Your task to perform on an android device: Search for vegetarian restaurants on Maps Image 0: 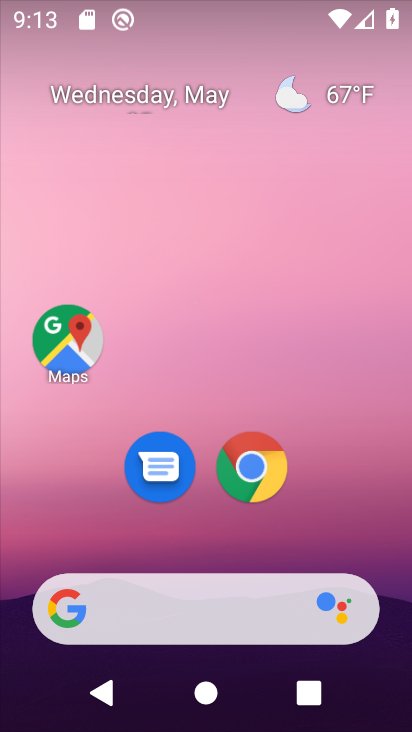
Step 0: drag from (319, 387) to (311, 62)
Your task to perform on an android device: Search for vegetarian restaurants on Maps Image 1: 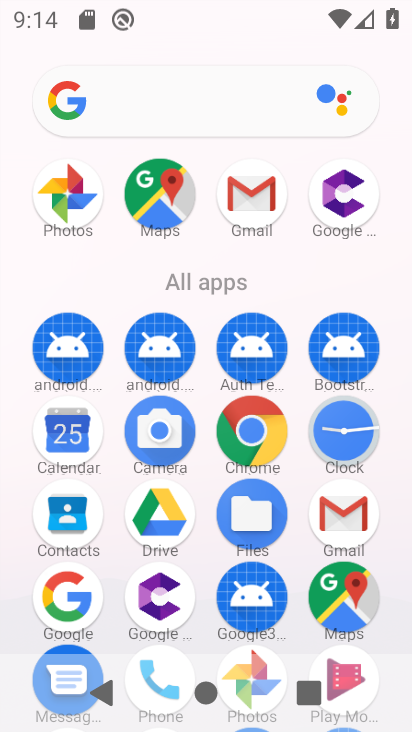
Step 1: click (174, 215)
Your task to perform on an android device: Search for vegetarian restaurants on Maps Image 2: 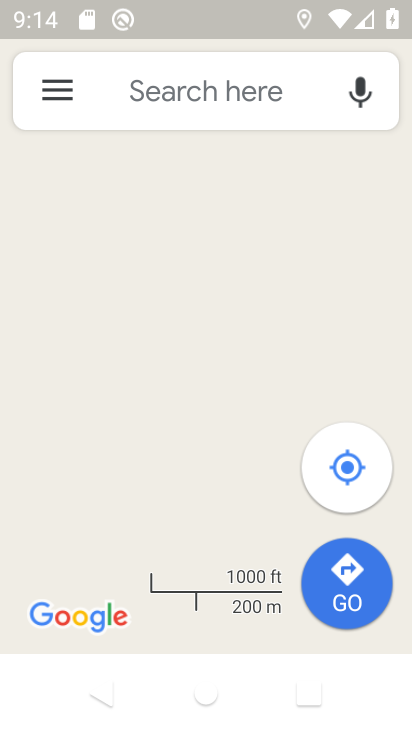
Step 2: click (49, 83)
Your task to perform on an android device: Search for vegetarian restaurants on Maps Image 3: 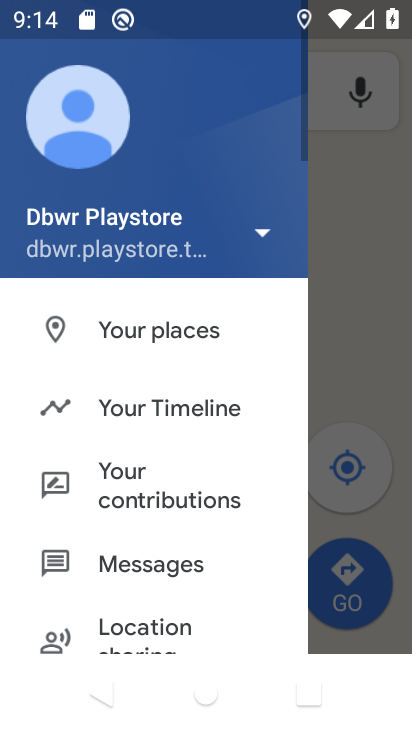
Step 3: click (403, 171)
Your task to perform on an android device: Search for vegetarian restaurants on Maps Image 4: 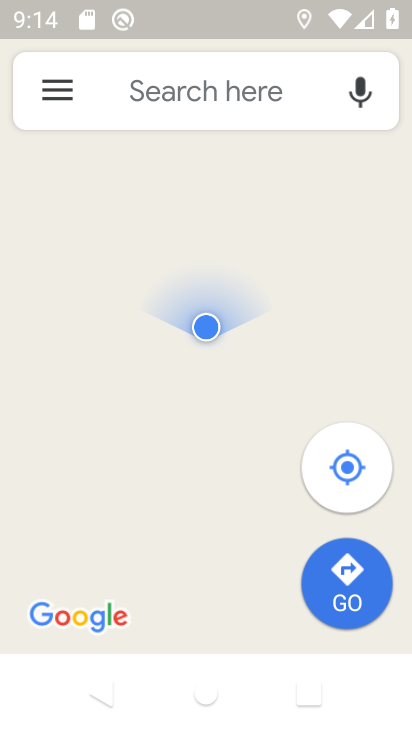
Step 4: click (249, 84)
Your task to perform on an android device: Search for vegetarian restaurants on Maps Image 5: 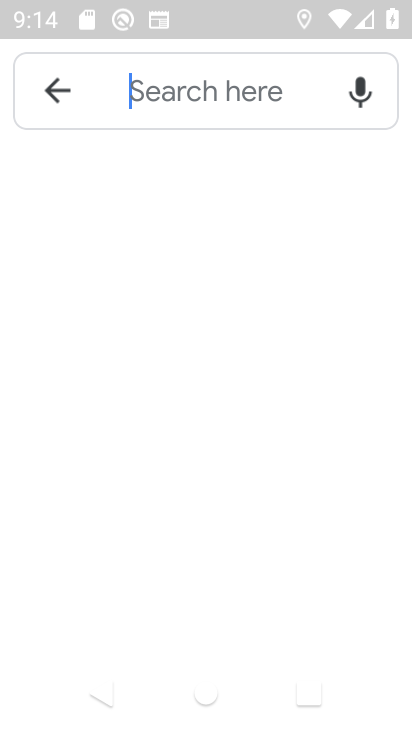
Step 5: click (257, 102)
Your task to perform on an android device: Search for vegetarian restaurants on Maps Image 6: 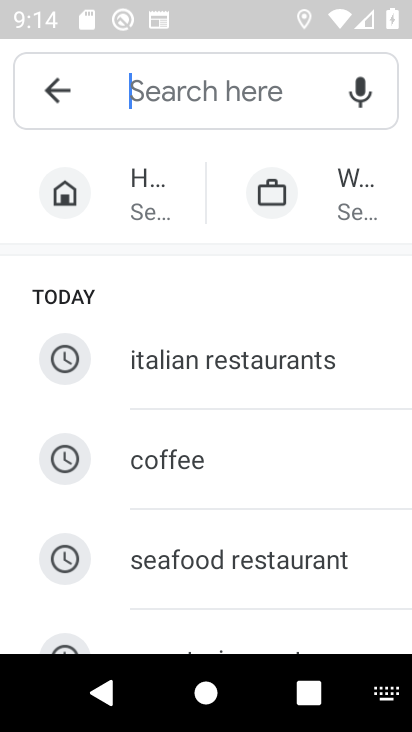
Step 6: type "vegetarian resturants"
Your task to perform on an android device: Search for vegetarian restaurants on Maps Image 7: 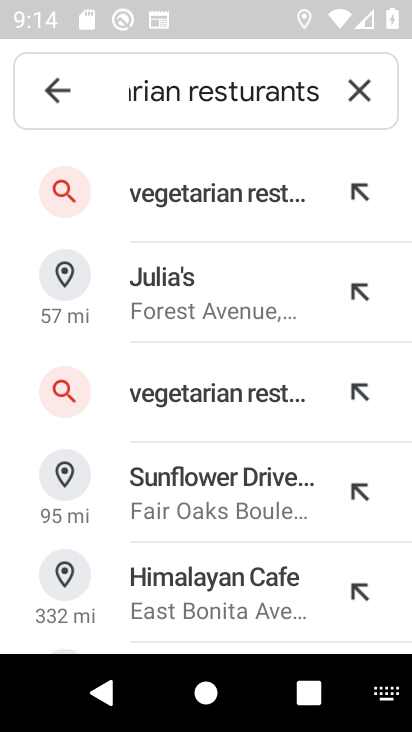
Step 7: click (208, 178)
Your task to perform on an android device: Search for vegetarian restaurants on Maps Image 8: 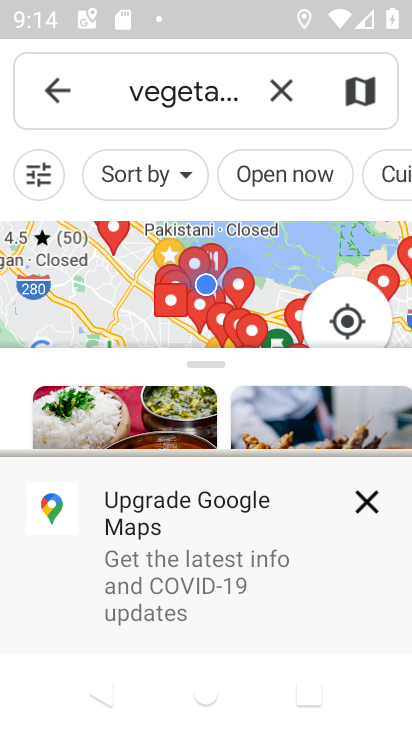
Step 8: click (373, 501)
Your task to perform on an android device: Search for vegetarian restaurants on Maps Image 9: 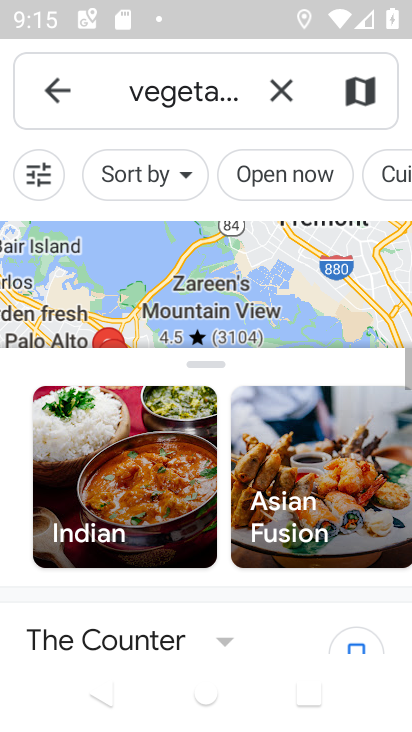
Step 9: task complete